Your task to perform on an android device: Go to Google maps Image 0: 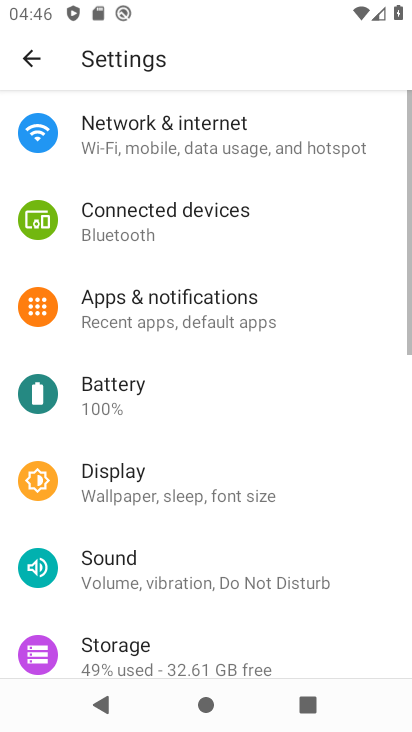
Step 0: press home button
Your task to perform on an android device: Go to Google maps Image 1: 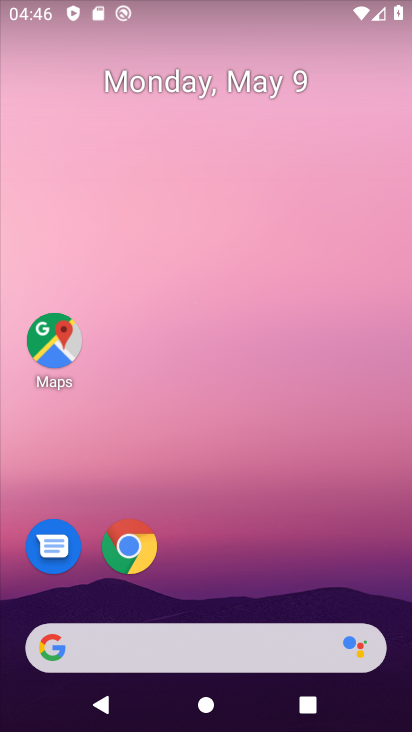
Step 1: drag from (228, 566) to (258, 237)
Your task to perform on an android device: Go to Google maps Image 2: 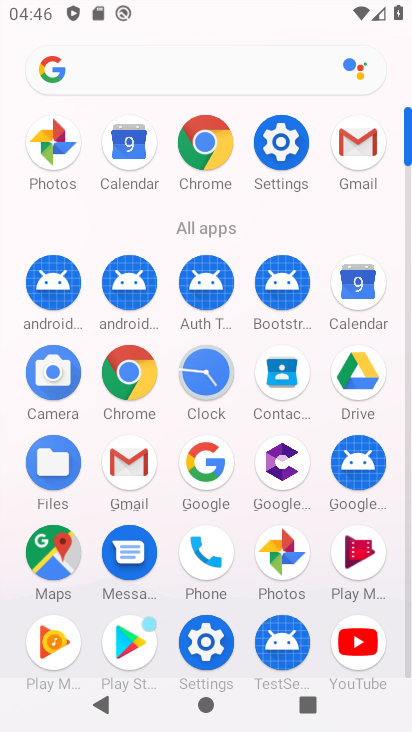
Step 2: click (64, 552)
Your task to perform on an android device: Go to Google maps Image 3: 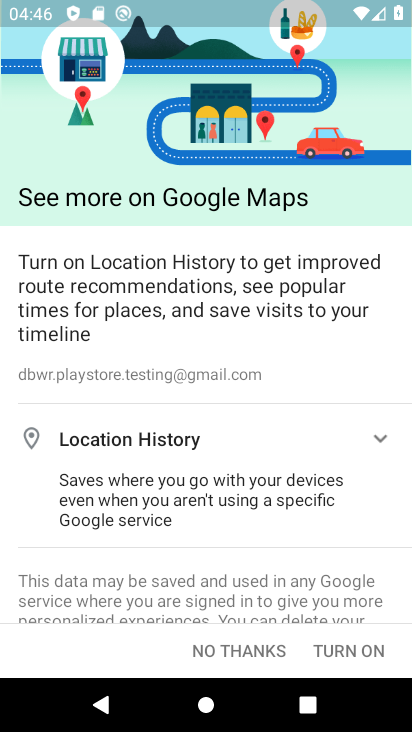
Step 3: click (278, 651)
Your task to perform on an android device: Go to Google maps Image 4: 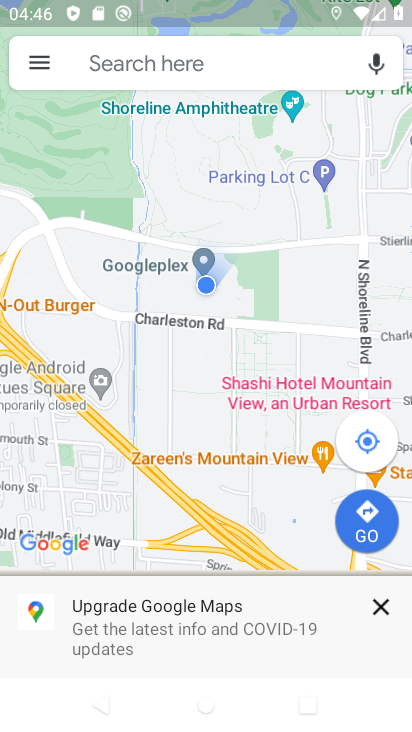
Step 4: click (379, 598)
Your task to perform on an android device: Go to Google maps Image 5: 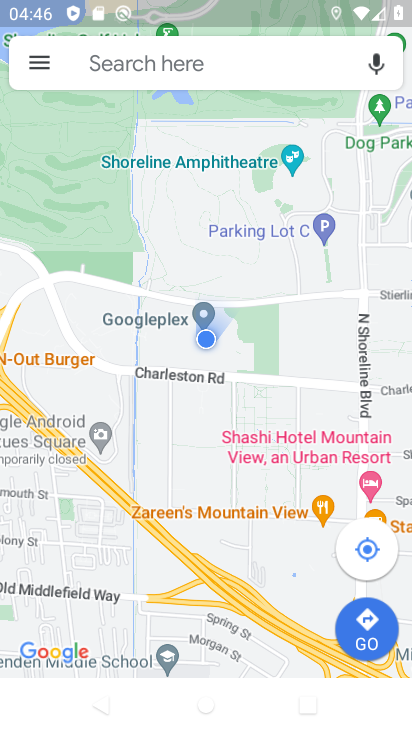
Step 5: task complete